Your task to perform on an android device: open device folders in google photos Image 0: 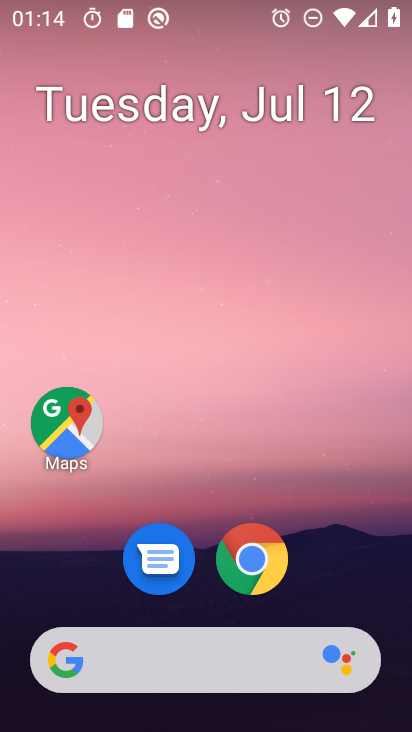
Step 0: drag from (227, 642) to (289, 25)
Your task to perform on an android device: open device folders in google photos Image 1: 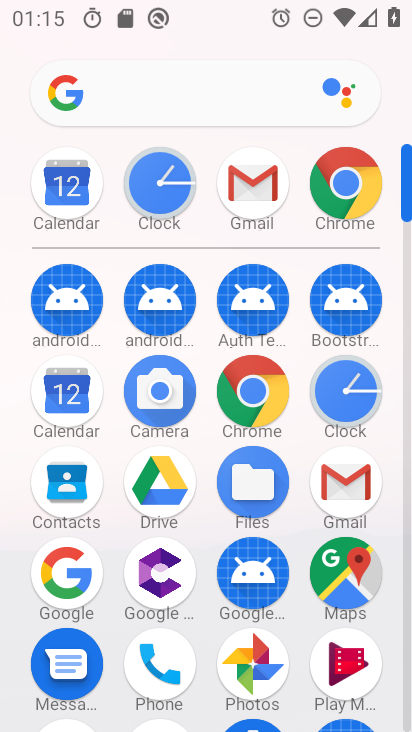
Step 1: click (239, 661)
Your task to perform on an android device: open device folders in google photos Image 2: 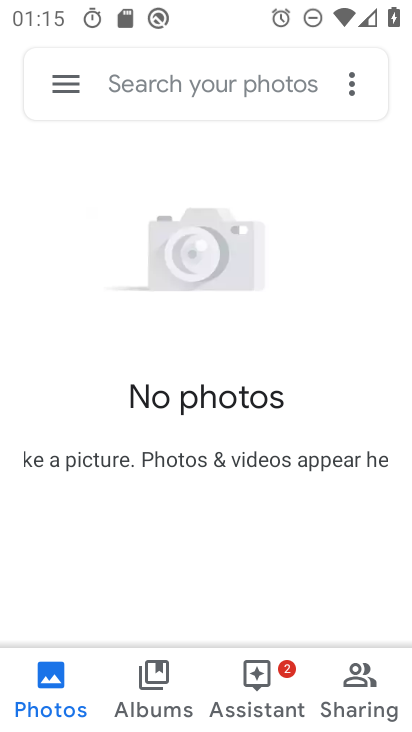
Step 2: click (67, 94)
Your task to perform on an android device: open device folders in google photos Image 3: 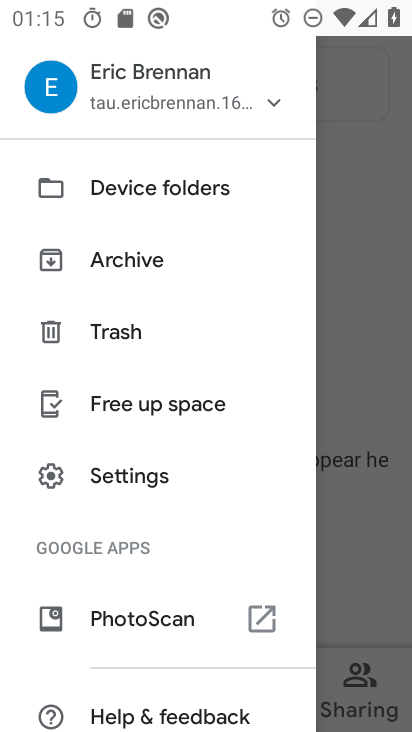
Step 3: click (172, 216)
Your task to perform on an android device: open device folders in google photos Image 4: 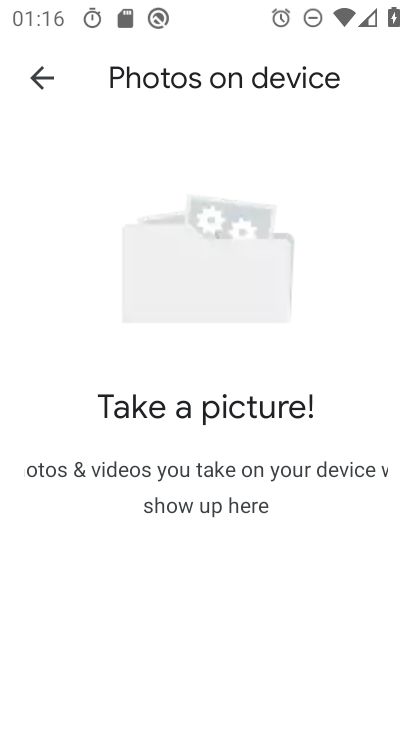
Step 4: task complete